Your task to perform on an android device: Open eBay Image 0: 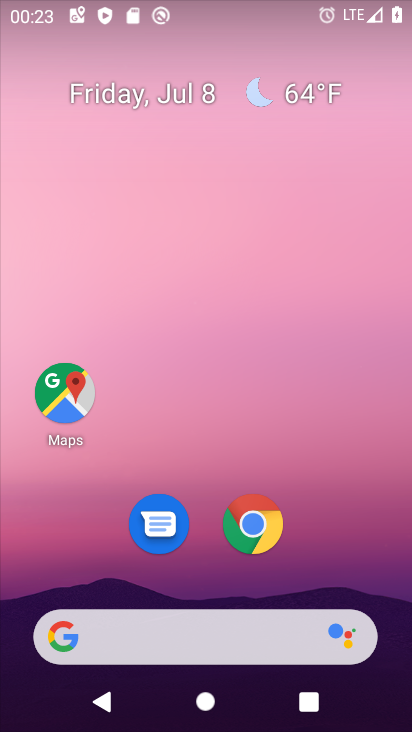
Step 0: drag from (314, 534) to (311, 75)
Your task to perform on an android device: Open eBay Image 1: 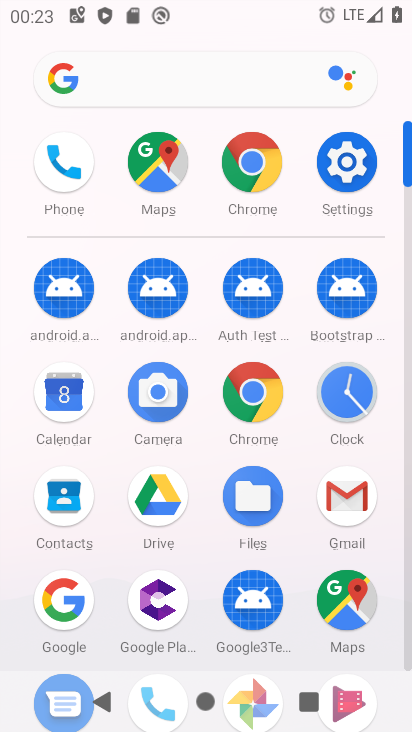
Step 1: click (177, 80)
Your task to perform on an android device: Open eBay Image 2: 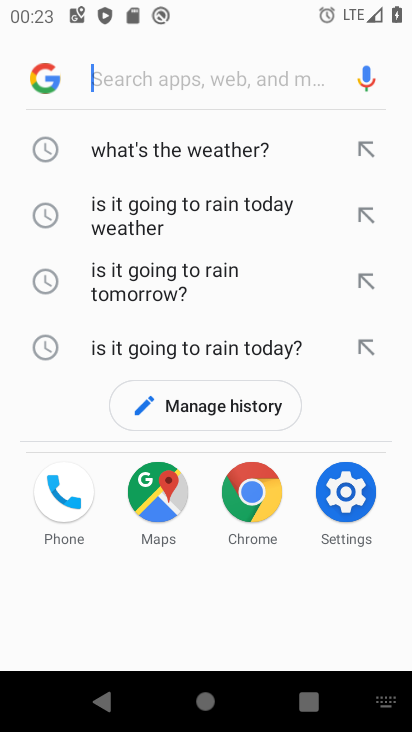
Step 2: type "ebay"
Your task to perform on an android device: Open eBay Image 3: 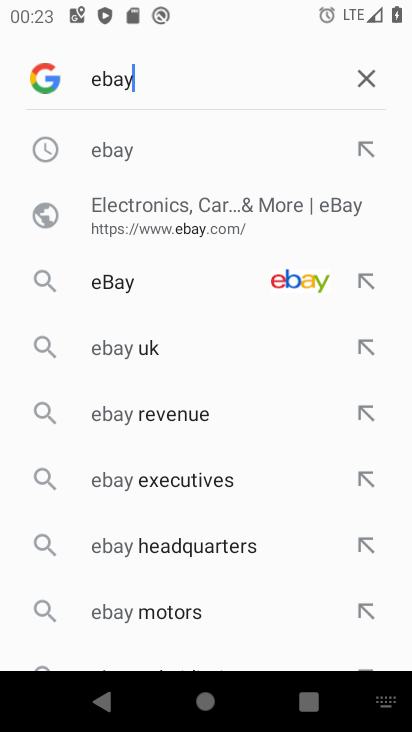
Step 3: click (305, 280)
Your task to perform on an android device: Open eBay Image 4: 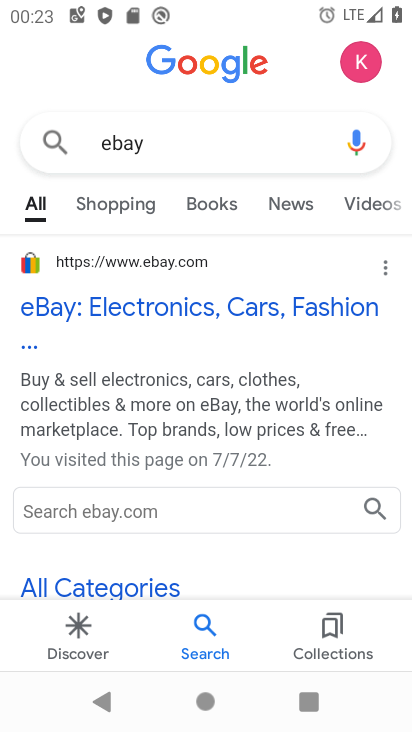
Step 4: click (49, 310)
Your task to perform on an android device: Open eBay Image 5: 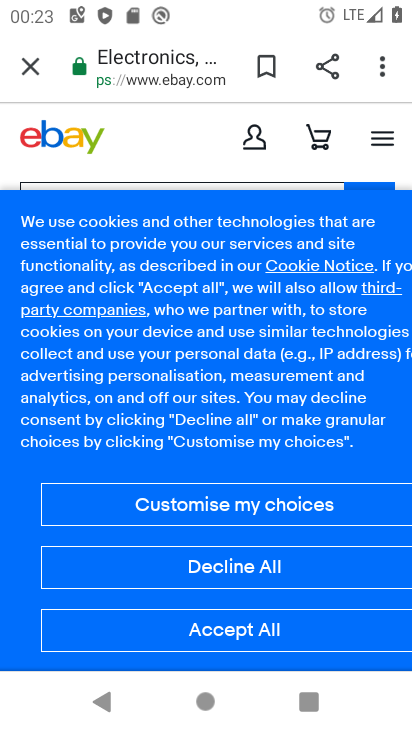
Step 5: click (277, 565)
Your task to perform on an android device: Open eBay Image 6: 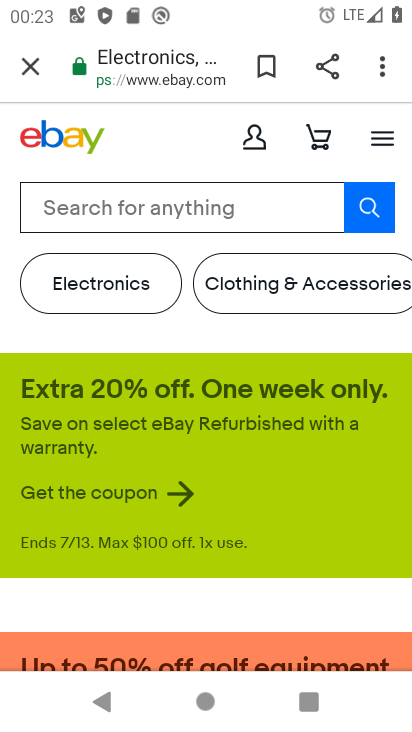
Step 6: task complete